Your task to perform on an android device: change timer sound Image 0: 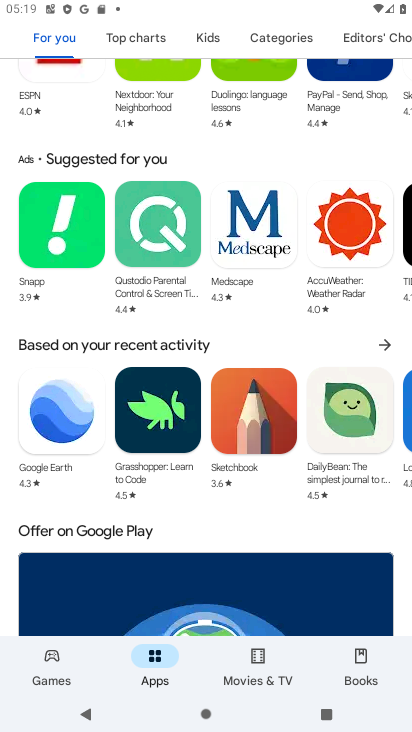
Step 0: press home button
Your task to perform on an android device: change timer sound Image 1: 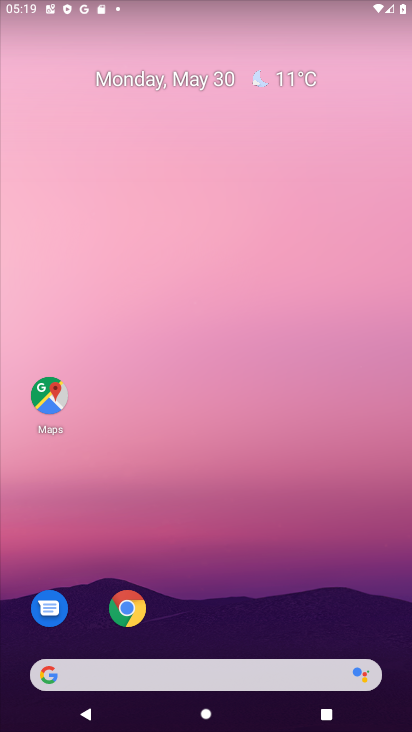
Step 1: drag from (177, 660) to (177, 282)
Your task to perform on an android device: change timer sound Image 2: 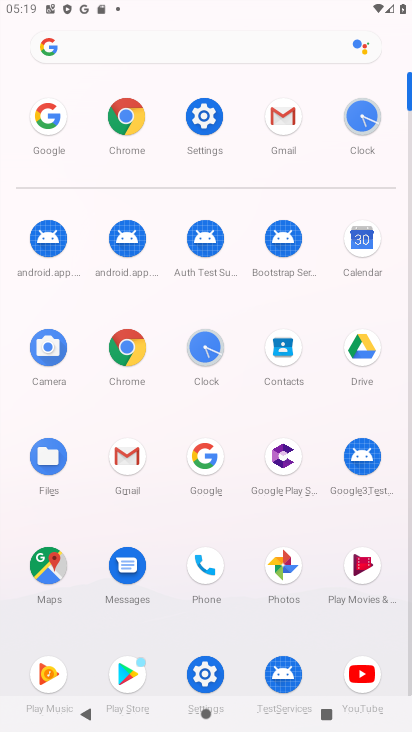
Step 2: click (201, 121)
Your task to perform on an android device: change timer sound Image 3: 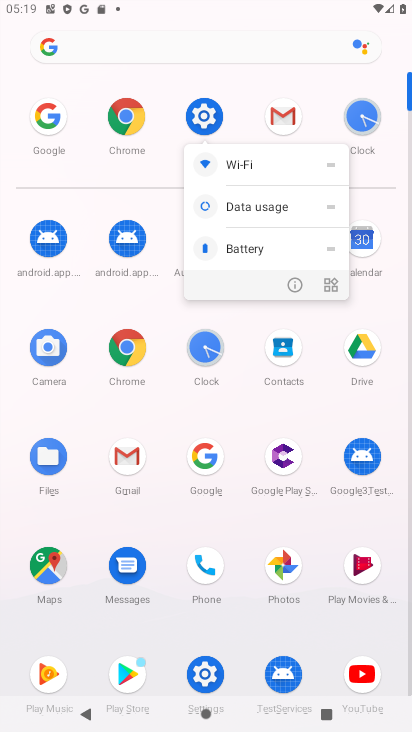
Step 3: click (214, 124)
Your task to perform on an android device: change timer sound Image 4: 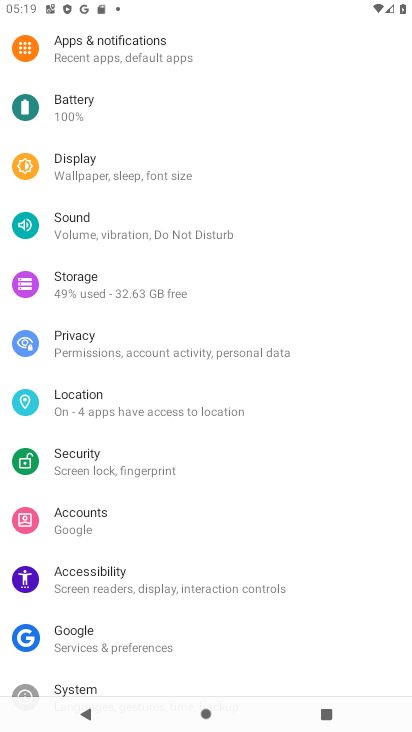
Step 4: click (96, 169)
Your task to perform on an android device: change timer sound Image 5: 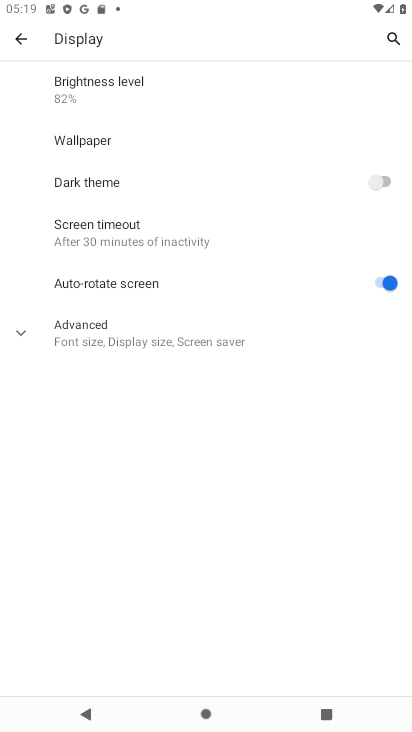
Step 5: click (143, 336)
Your task to perform on an android device: change timer sound Image 6: 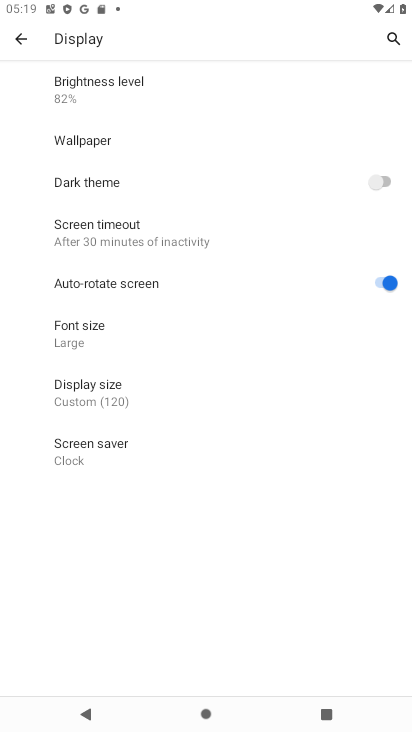
Step 6: task complete